Your task to perform on an android device: set the timer Image 0: 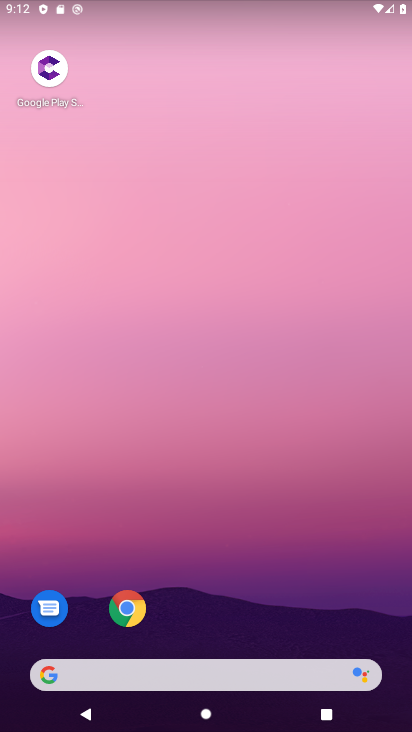
Step 0: drag from (219, 602) to (202, 33)
Your task to perform on an android device: set the timer Image 1: 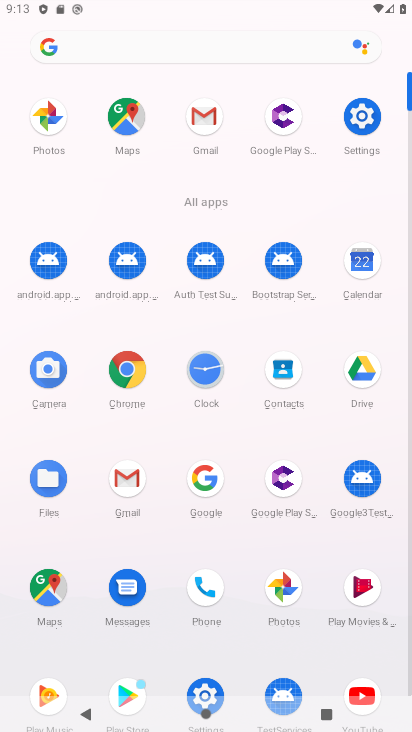
Step 1: click (200, 369)
Your task to perform on an android device: set the timer Image 2: 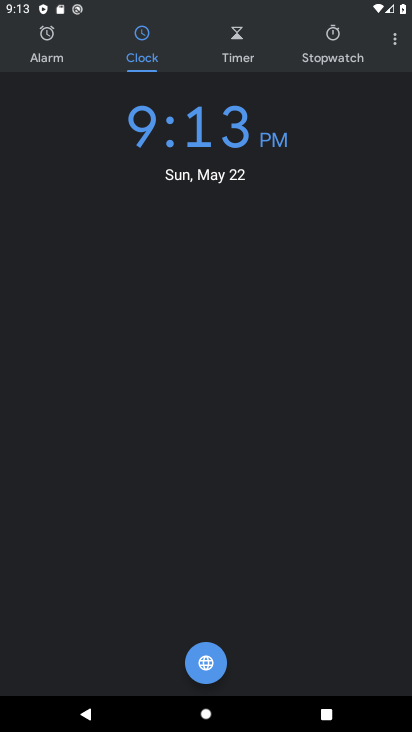
Step 2: click (54, 51)
Your task to perform on an android device: set the timer Image 3: 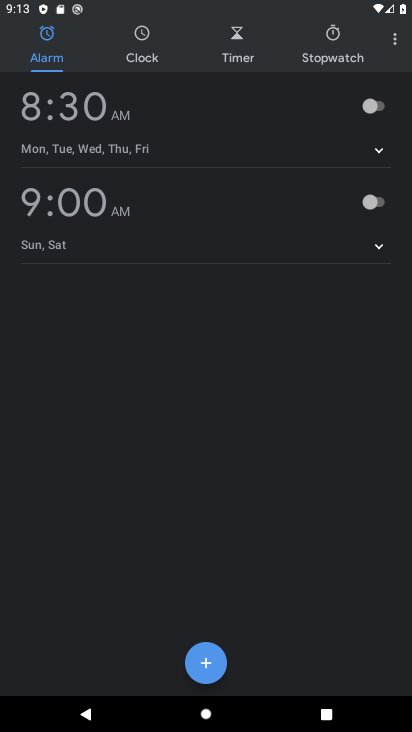
Step 3: click (212, 659)
Your task to perform on an android device: set the timer Image 4: 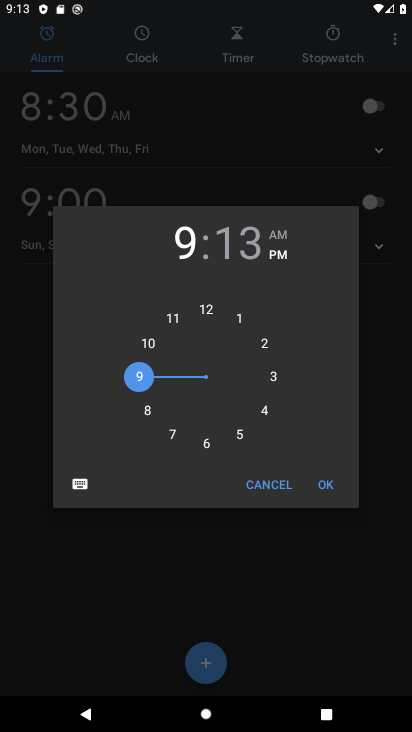
Step 4: click (320, 482)
Your task to perform on an android device: set the timer Image 5: 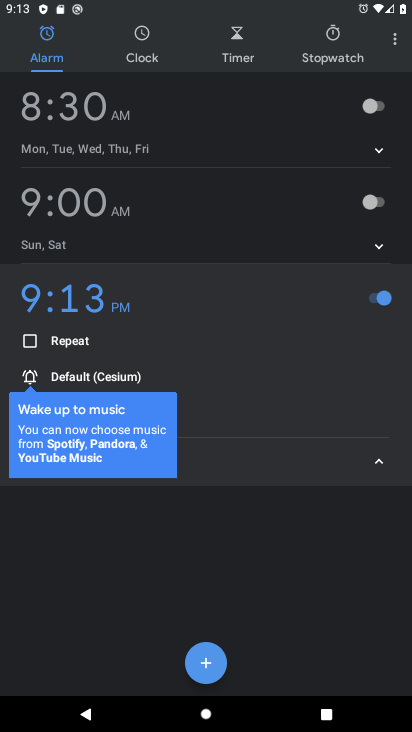
Step 5: task complete